Your task to perform on an android device: Go to calendar. Show me events next week Image 0: 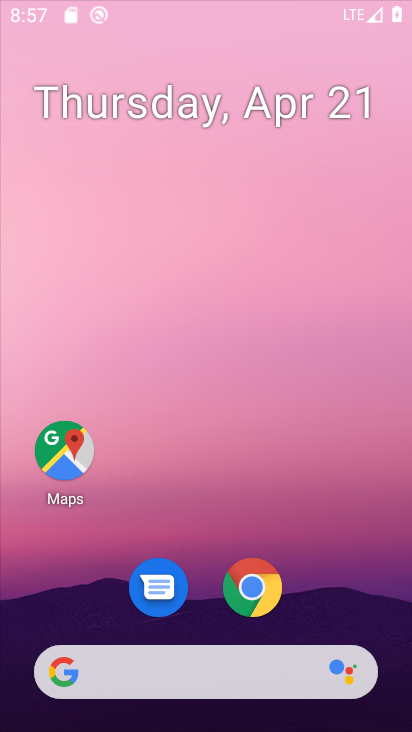
Step 0: click (246, 592)
Your task to perform on an android device: Go to calendar. Show me events next week Image 1: 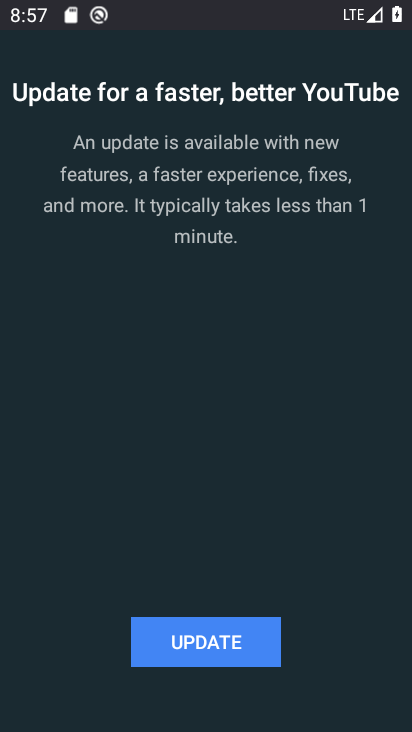
Step 1: press back button
Your task to perform on an android device: Go to calendar. Show me events next week Image 2: 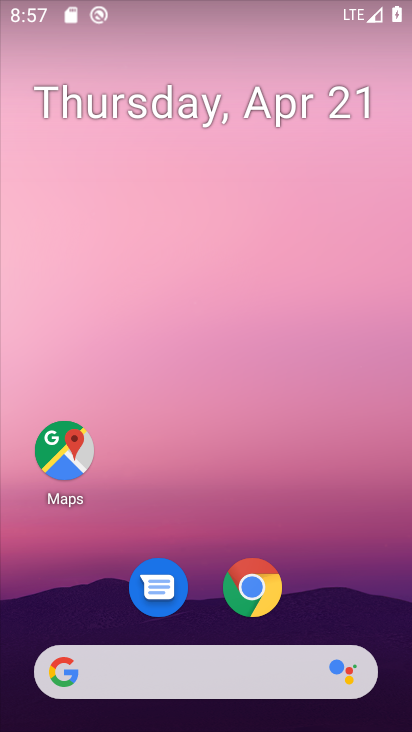
Step 2: drag from (376, 535) to (360, 213)
Your task to perform on an android device: Go to calendar. Show me events next week Image 3: 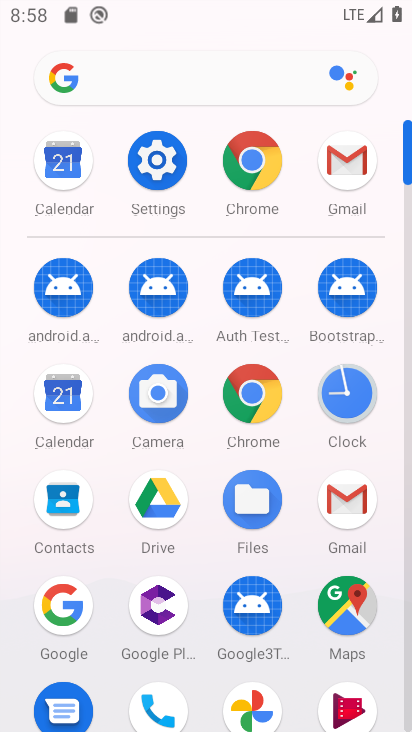
Step 3: click (73, 396)
Your task to perform on an android device: Go to calendar. Show me events next week Image 4: 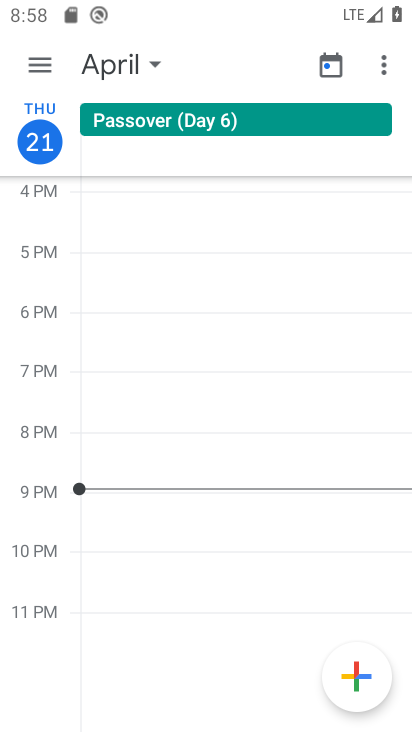
Step 4: click (146, 60)
Your task to perform on an android device: Go to calendar. Show me events next week Image 5: 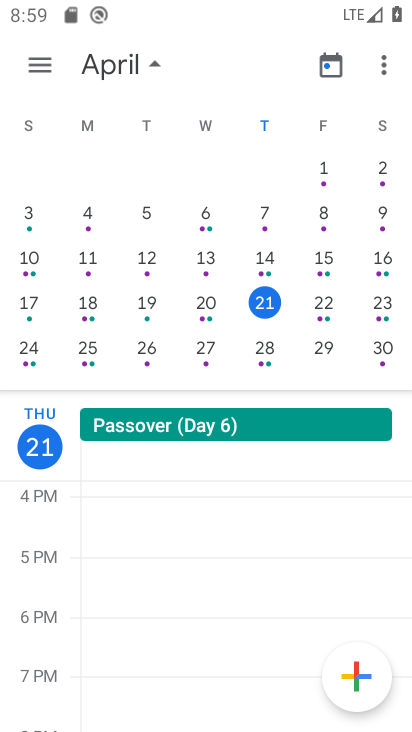
Step 5: click (264, 342)
Your task to perform on an android device: Go to calendar. Show me events next week Image 6: 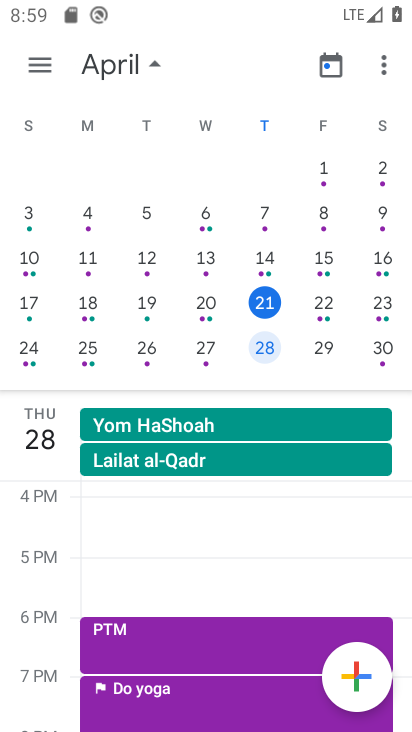
Step 6: click (39, 54)
Your task to perform on an android device: Go to calendar. Show me events next week Image 7: 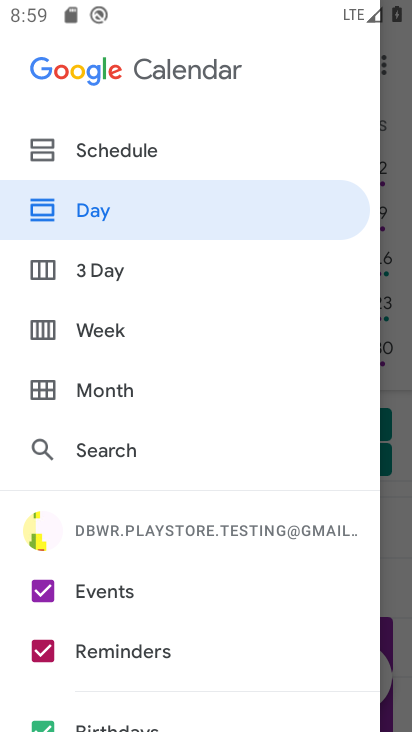
Step 7: click (98, 329)
Your task to perform on an android device: Go to calendar. Show me events next week Image 8: 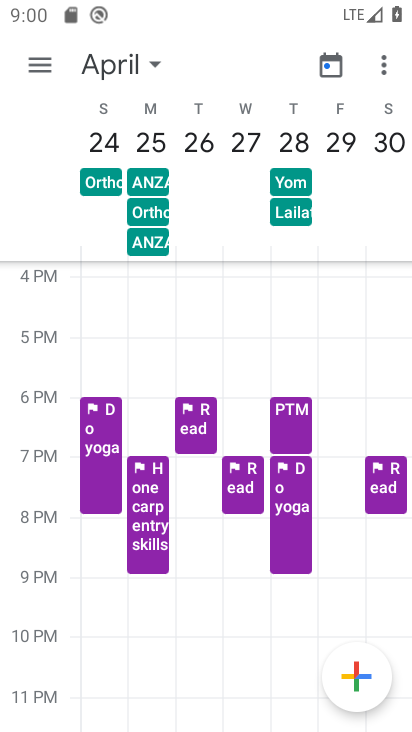
Step 8: task complete